Your task to perform on an android device: install app "Spotify: Music and Podcasts" Image 0: 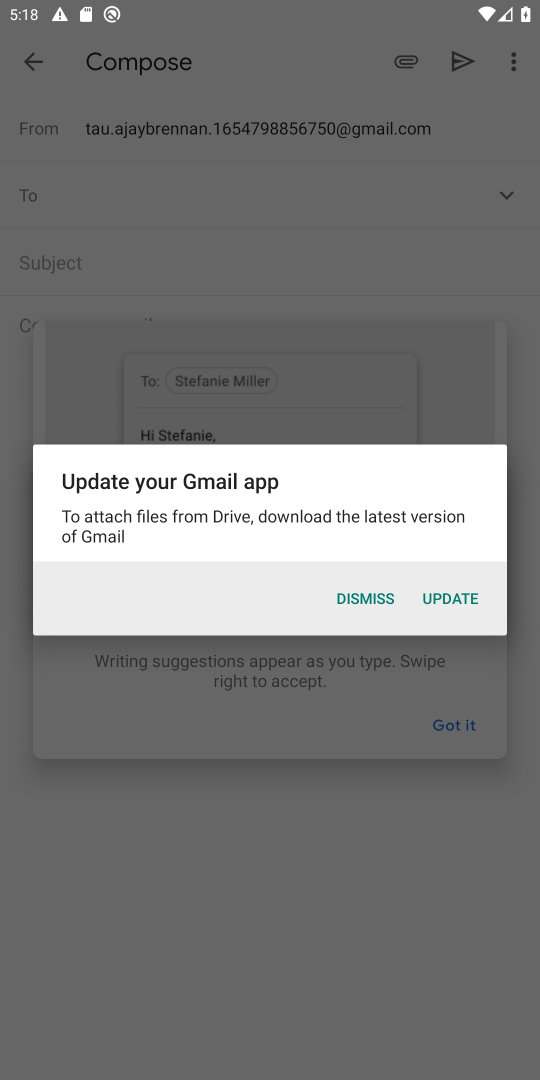
Step 0: press home button
Your task to perform on an android device: install app "Spotify: Music and Podcasts" Image 1: 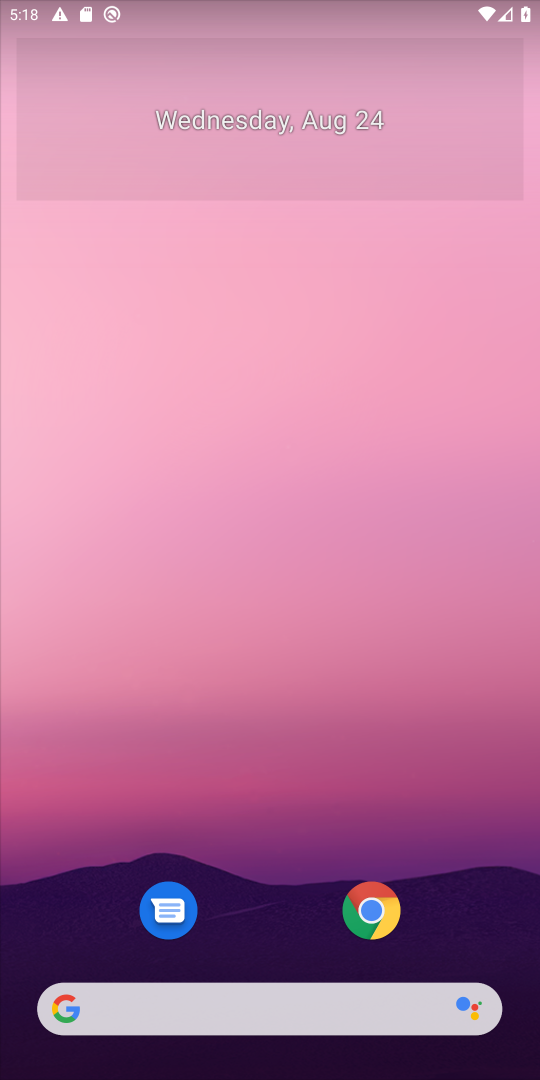
Step 1: drag from (251, 1006) to (188, 201)
Your task to perform on an android device: install app "Spotify: Music and Podcasts" Image 2: 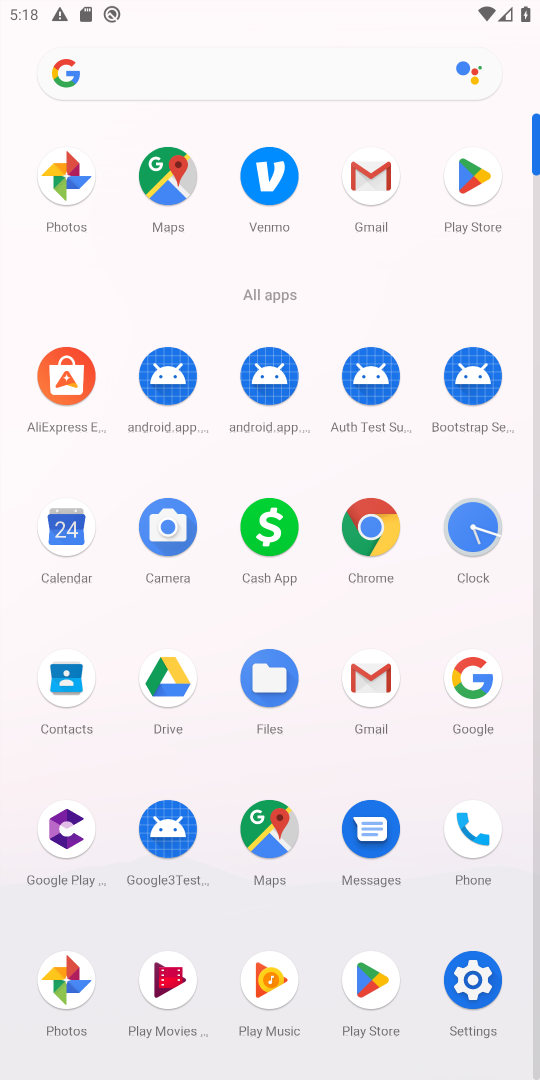
Step 2: click (462, 196)
Your task to perform on an android device: install app "Spotify: Music and Podcasts" Image 3: 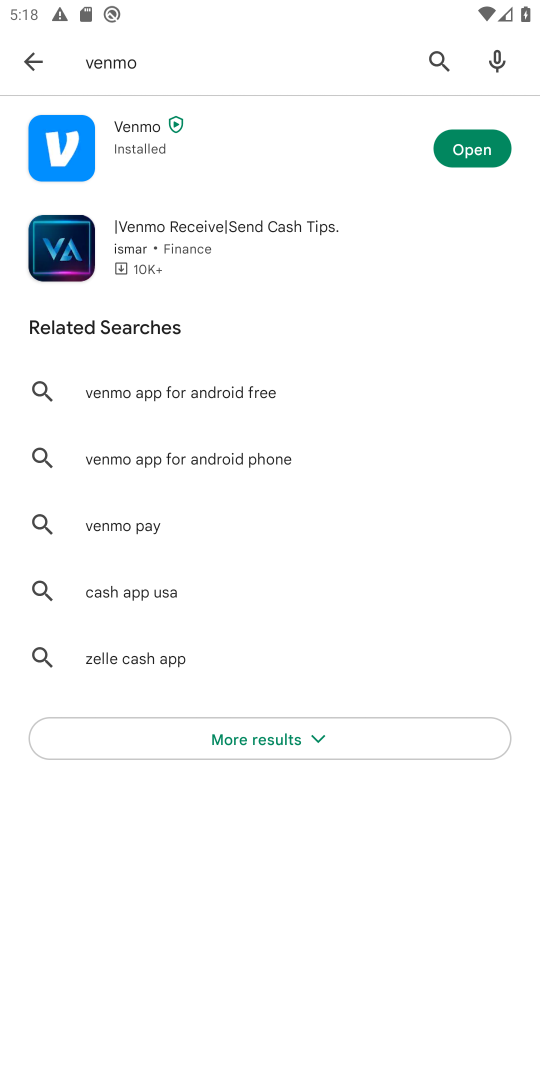
Step 3: click (430, 66)
Your task to perform on an android device: install app "Spotify: Music and Podcasts" Image 4: 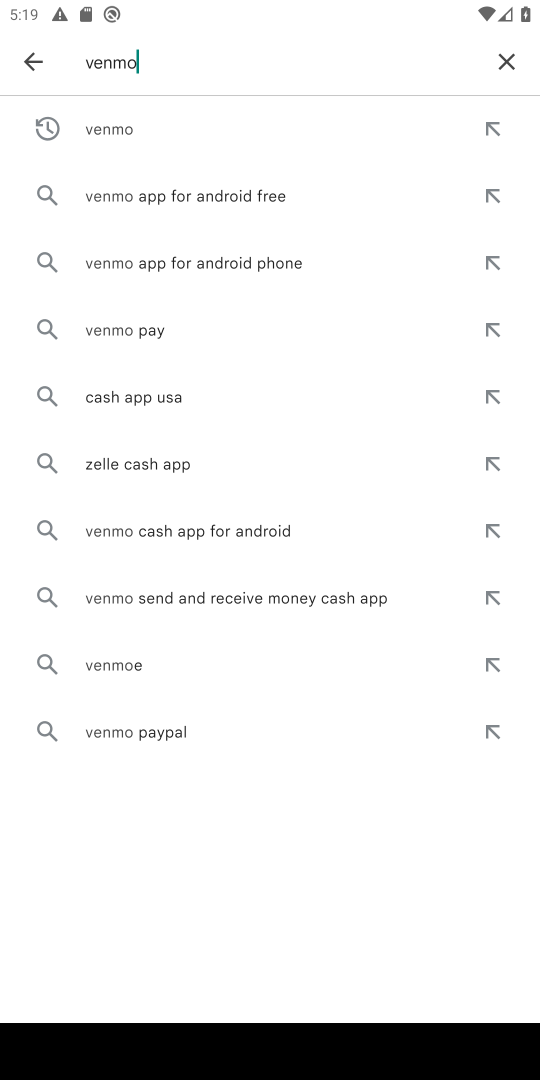
Step 4: click (522, 46)
Your task to perform on an android device: install app "Spotify: Music and Podcasts" Image 5: 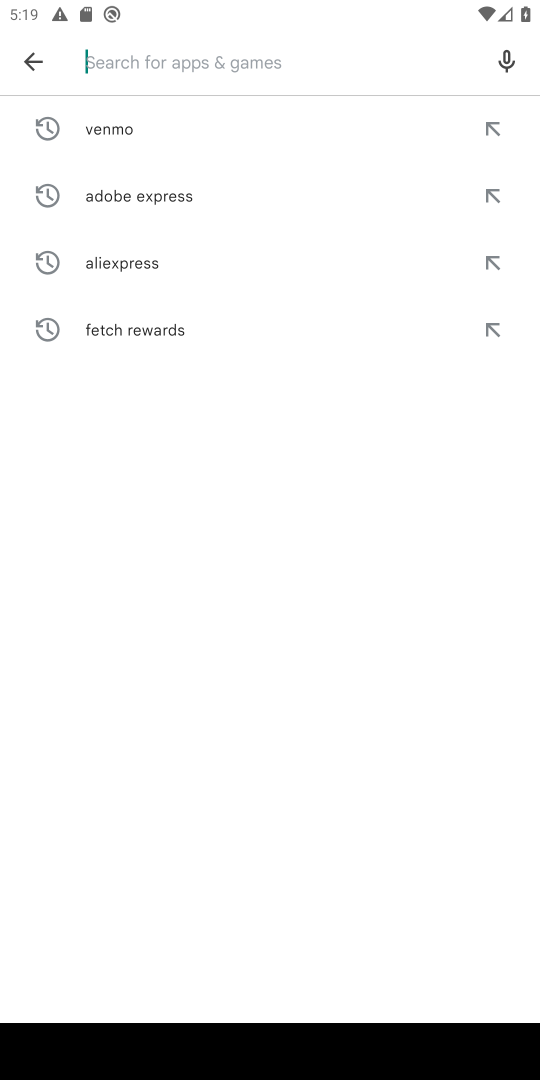
Step 5: type "spotify"
Your task to perform on an android device: install app "Spotify: Music and Podcasts" Image 6: 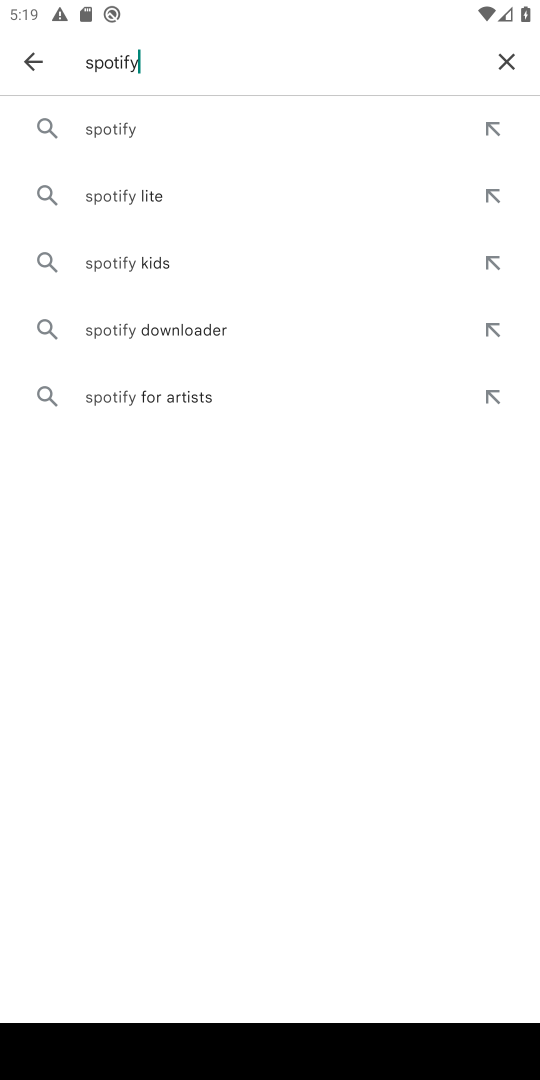
Step 6: click (159, 120)
Your task to perform on an android device: install app "Spotify: Music and Podcasts" Image 7: 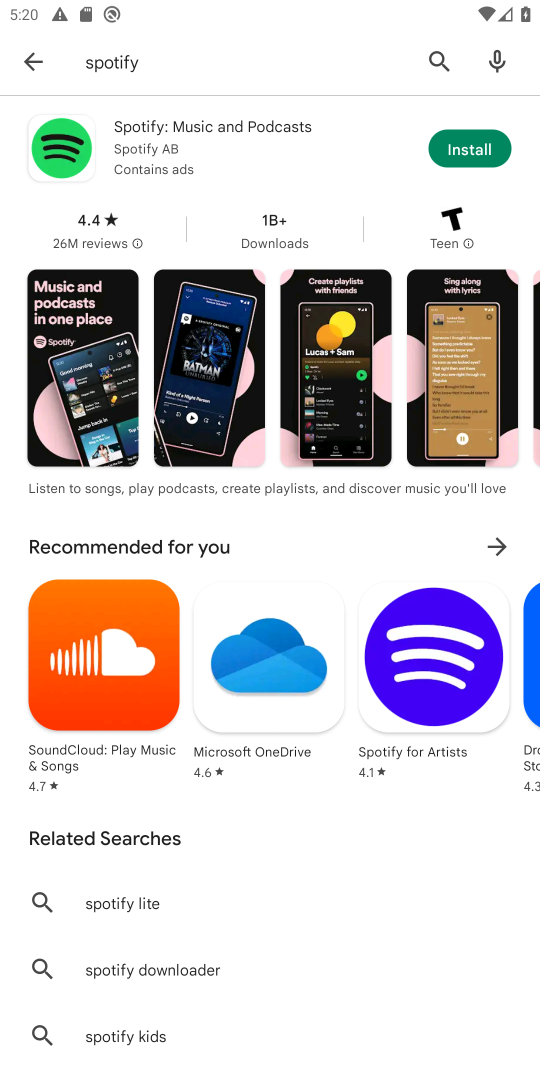
Step 7: click (463, 151)
Your task to perform on an android device: install app "Spotify: Music and Podcasts" Image 8: 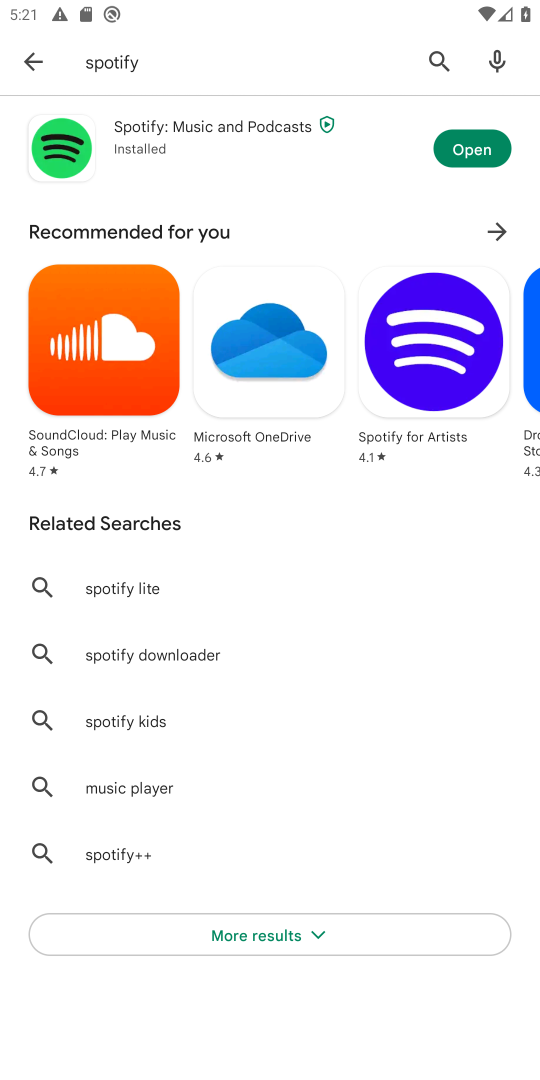
Step 8: task complete